Your task to perform on an android device: Show me popular games on the Play Store Image 0: 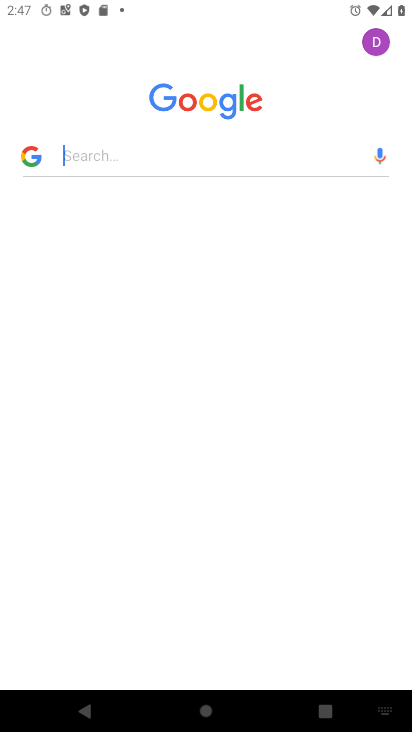
Step 0: press home button
Your task to perform on an android device: Show me popular games on the Play Store Image 1: 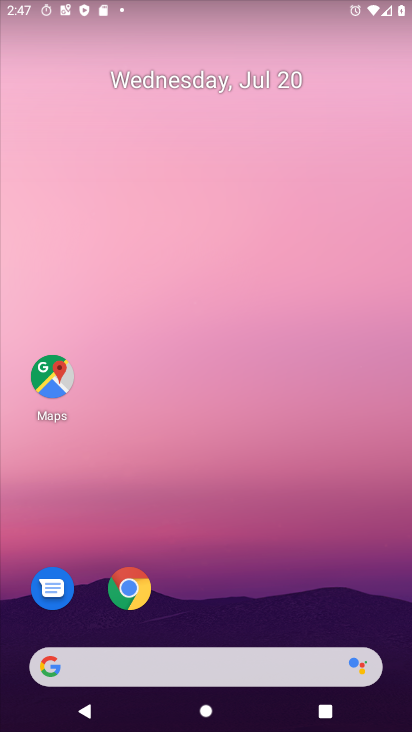
Step 1: drag from (299, 600) to (303, 234)
Your task to perform on an android device: Show me popular games on the Play Store Image 2: 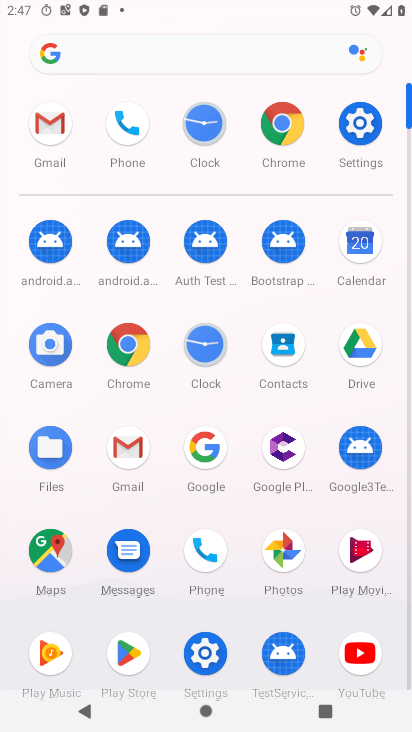
Step 2: click (129, 661)
Your task to perform on an android device: Show me popular games on the Play Store Image 3: 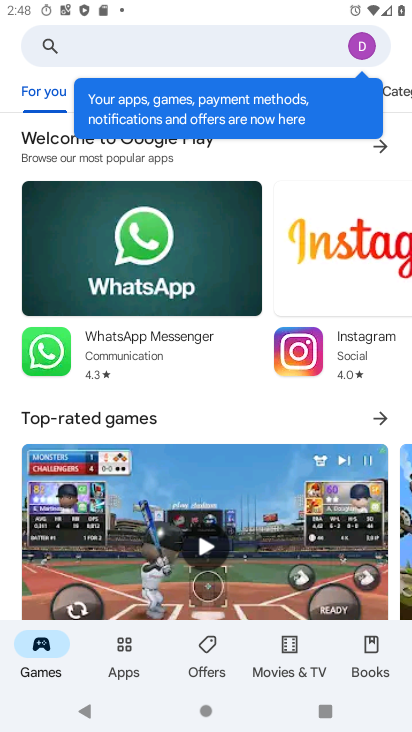
Step 3: press home button
Your task to perform on an android device: Show me popular games on the Play Store Image 4: 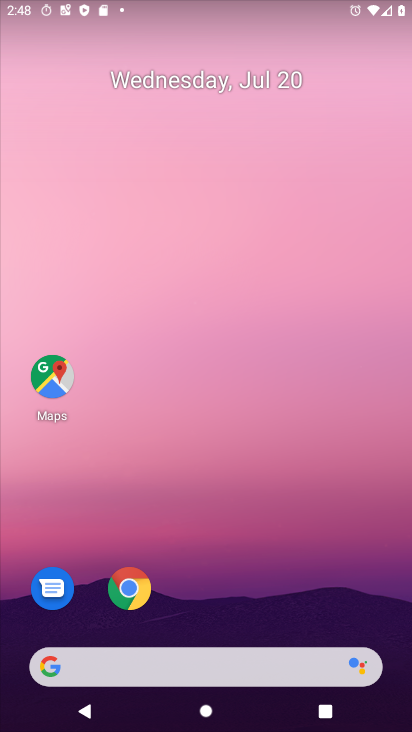
Step 4: drag from (285, 485) to (374, 14)
Your task to perform on an android device: Show me popular games on the Play Store Image 5: 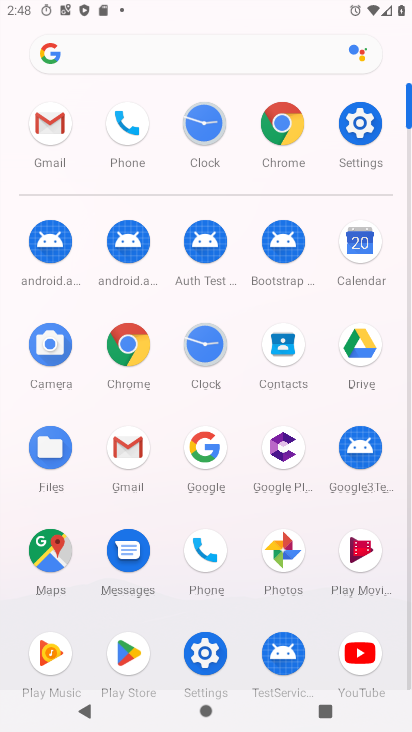
Step 5: click (135, 664)
Your task to perform on an android device: Show me popular games on the Play Store Image 6: 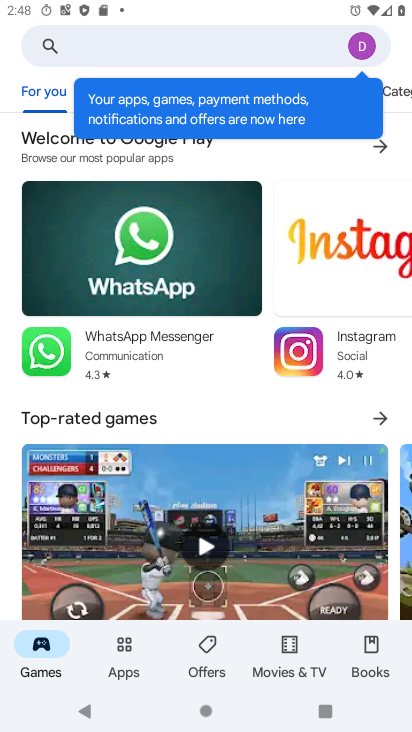
Step 6: click (155, 45)
Your task to perform on an android device: Show me popular games on the Play Store Image 7: 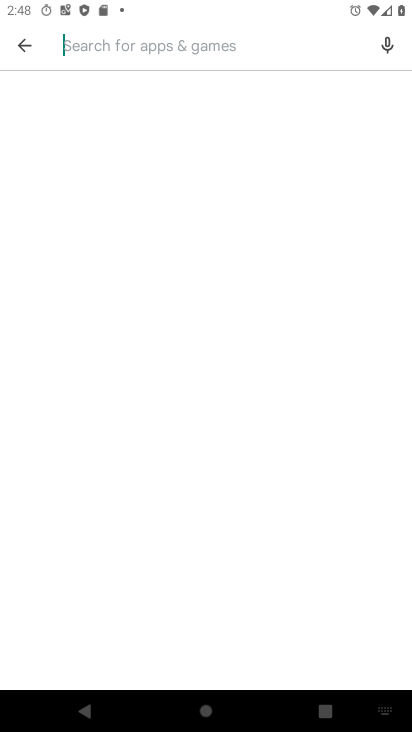
Step 7: type "popular games"
Your task to perform on an android device: Show me popular games on the Play Store Image 8: 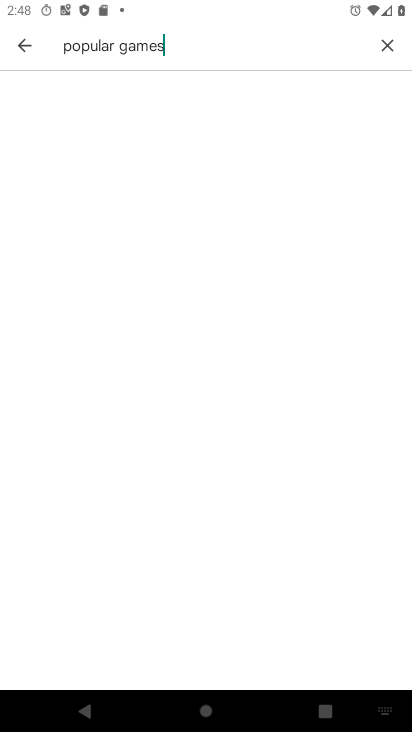
Step 8: press enter
Your task to perform on an android device: Show me popular games on the Play Store Image 9: 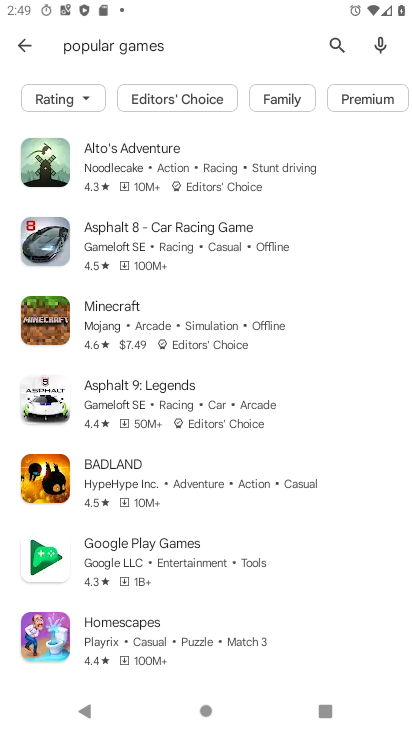
Step 9: task complete